Your task to perform on an android device: Go to Google maps Image 0: 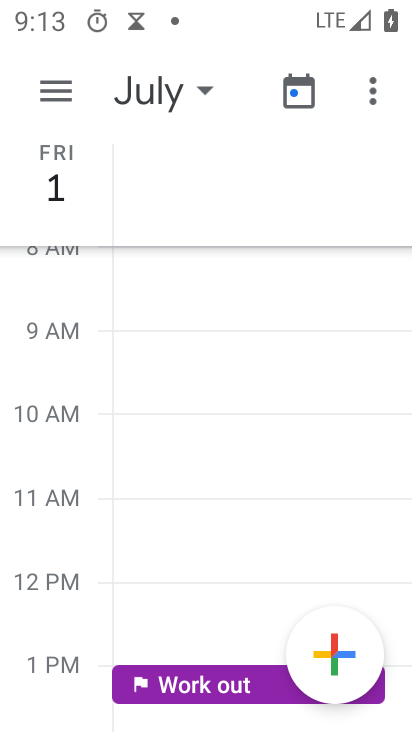
Step 0: press home button
Your task to perform on an android device: Go to Google maps Image 1: 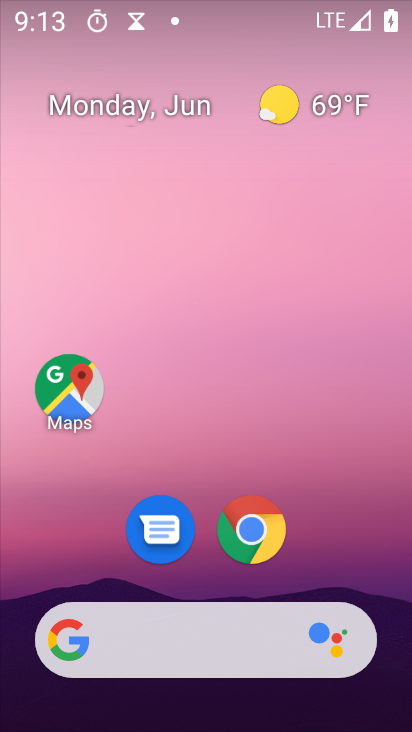
Step 1: click (55, 391)
Your task to perform on an android device: Go to Google maps Image 2: 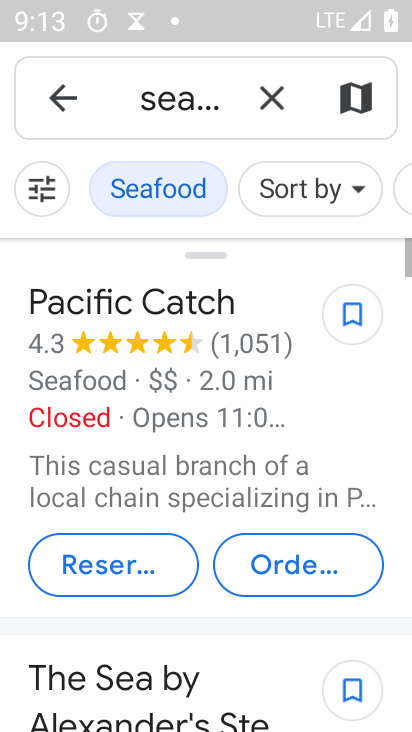
Step 2: task complete